Your task to perform on an android device: Show me popular games on the Play Store Image 0: 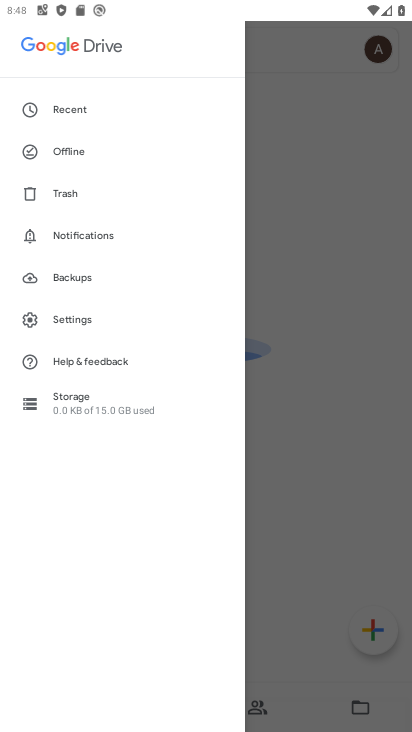
Step 0: click (328, 365)
Your task to perform on an android device: Show me popular games on the Play Store Image 1: 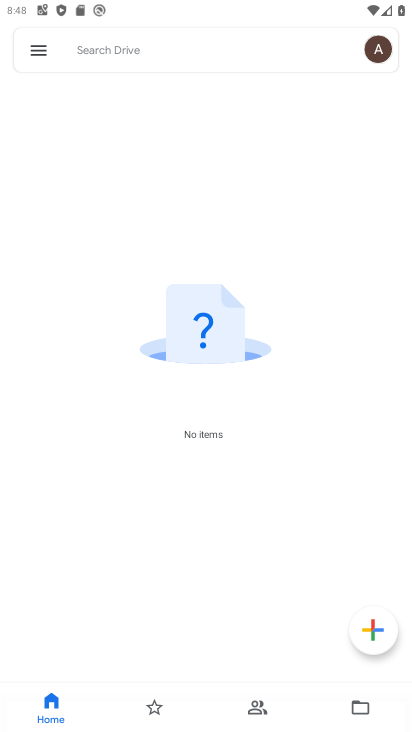
Step 1: press home button
Your task to perform on an android device: Show me popular games on the Play Store Image 2: 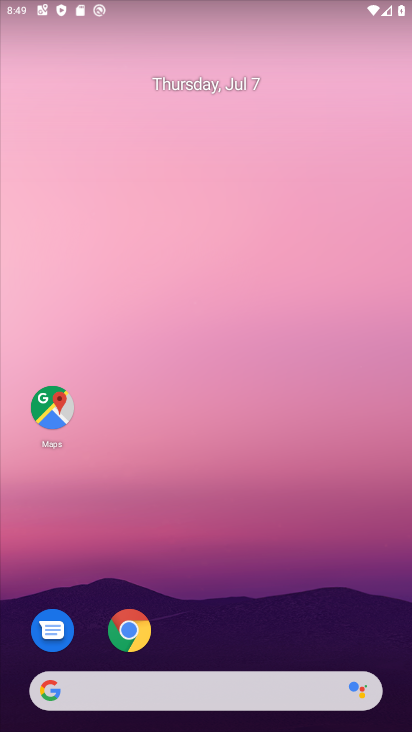
Step 2: drag from (196, 536) to (253, 115)
Your task to perform on an android device: Show me popular games on the Play Store Image 3: 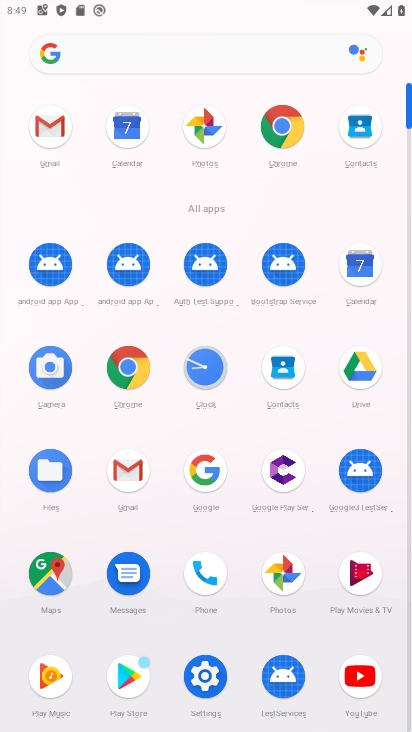
Step 3: drag from (144, 615) to (183, 170)
Your task to perform on an android device: Show me popular games on the Play Store Image 4: 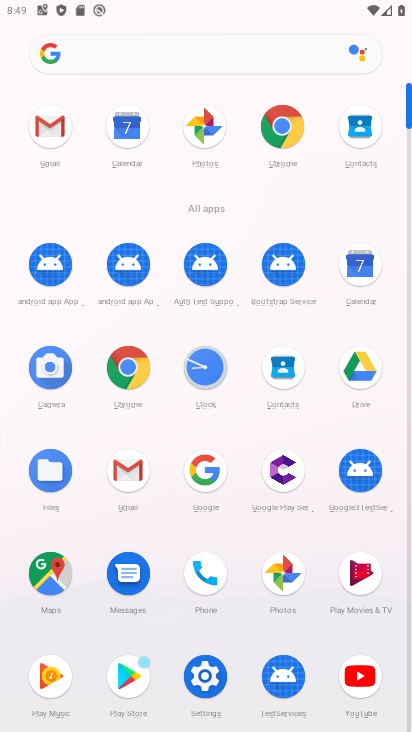
Step 4: click (121, 688)
Your task to perform on an android device: Show me popular games on the Play Store Image 5: 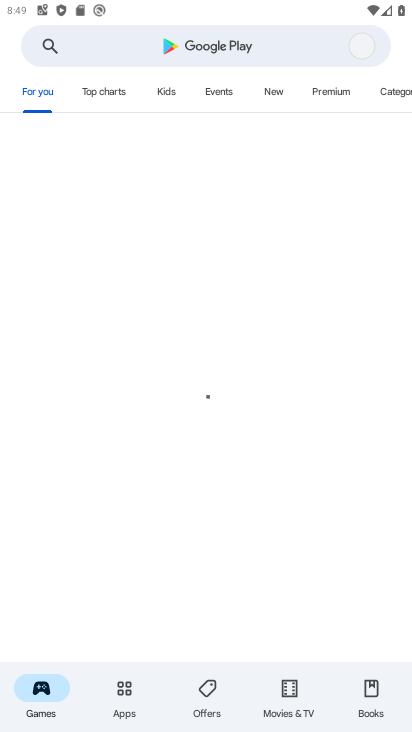
Step 5: task complete